Your task to perform on an android device: Go to eBay Image 0: 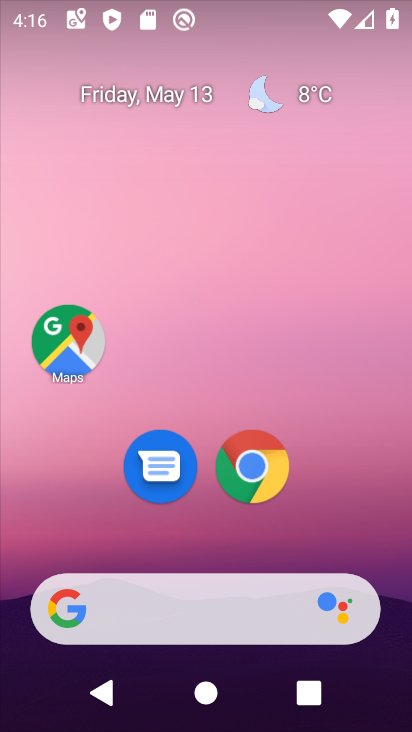
Step 0: click (245, 459)
Your task to perform on an android device: Go to eBay Image 1: 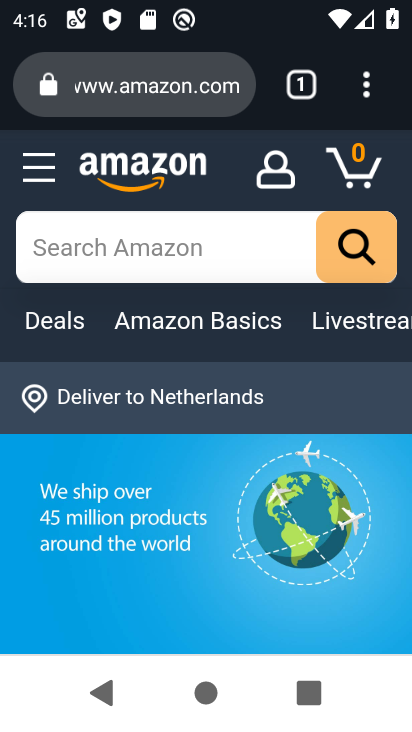
Step 1: click (205, 89)
Your task to perform on an android device: Go to eBay Image 2: 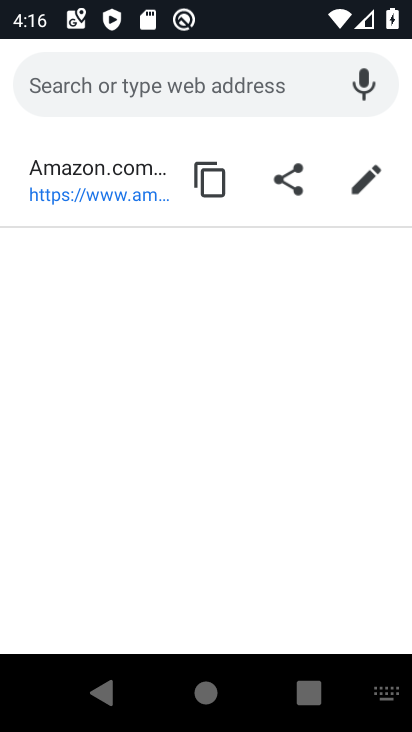
Step 2: type "ebay"
Your task to perform on an android device: Go to eBay Image 3: 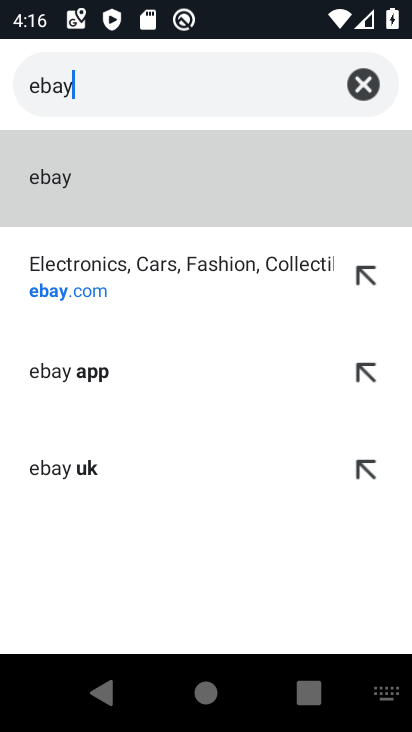
Step 3: click (65, 271)
Your task to perform on an android device: Go to eBay Image 4: 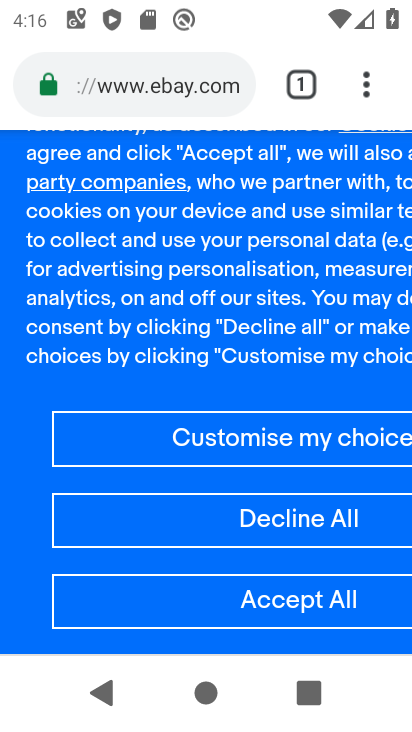
Step 4: task complete